Your task to perform on an android device: Open calendar and show me the first week of next month Image 0: 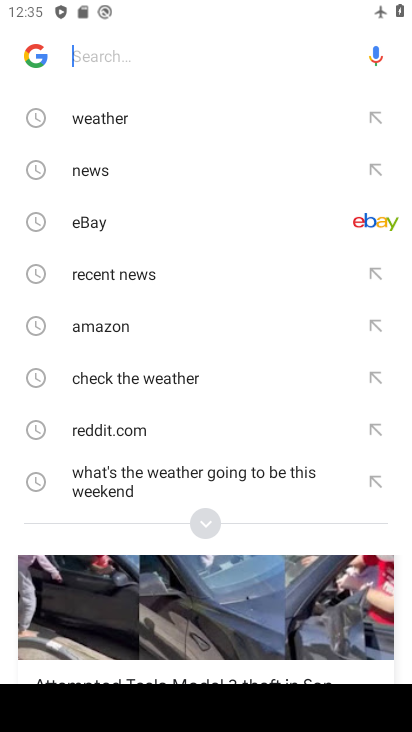
Step 0: press home button
Your task to perform on an android device: Open calendar and show me the first week of next month Image 1: 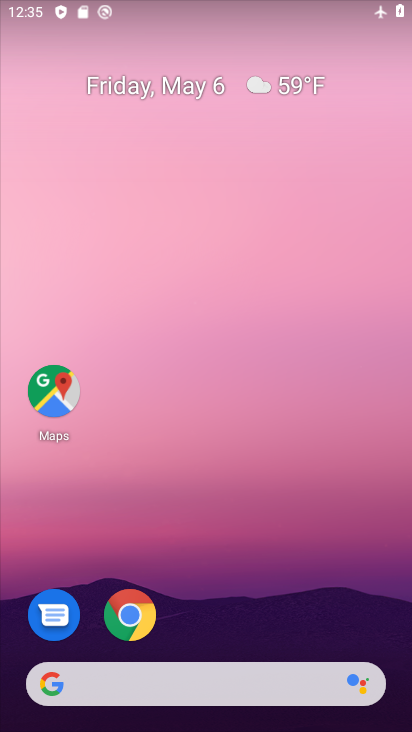
Step 1: drag from (216, 558) to (226, 134)
Your task to perform on an android device: Open calendar and show me the first week of next month Image 2: 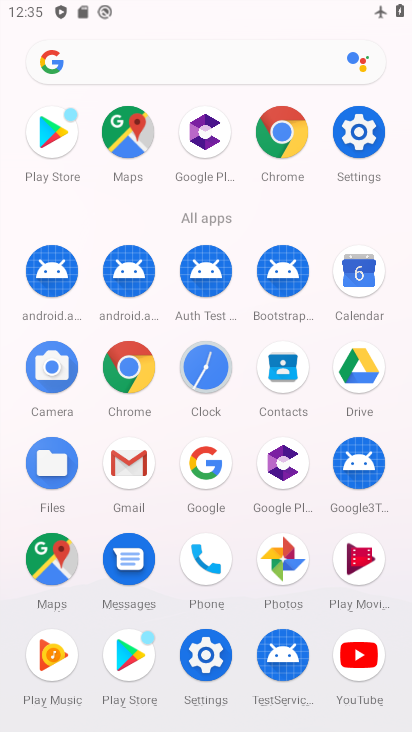
Step 2: click (353, 262)
Your task to perform on an android device: Open calendar and show me the first week of next month Image 3: 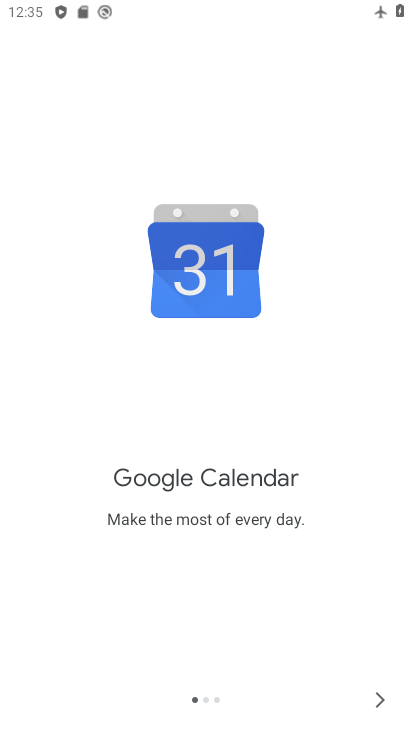
Step 3: click (376, 696)
Your task to perform on an android device: Open calendar and show me the first week of next month Image 4: 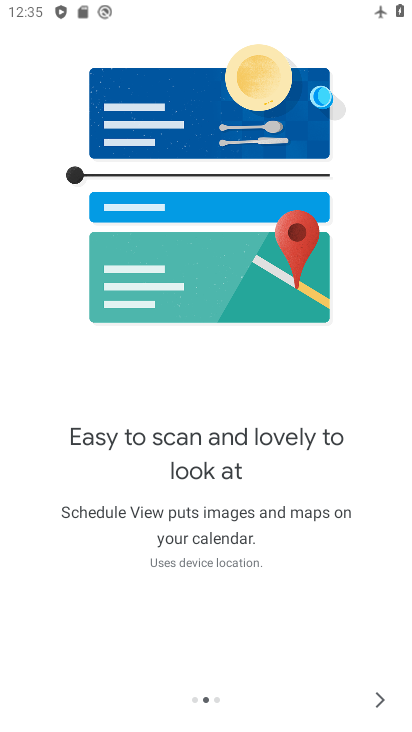
Step 4: click (375, 699)
Your task to perform on an android device: Open calendar and show me the first week of next month Image 5: 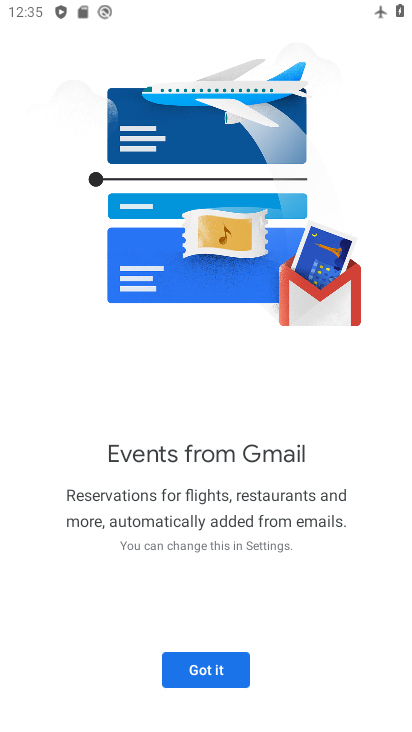
Step 5: click (242, 673)
Your task to perform on an android device: Open calendar and show me the first week of next month Image 6: 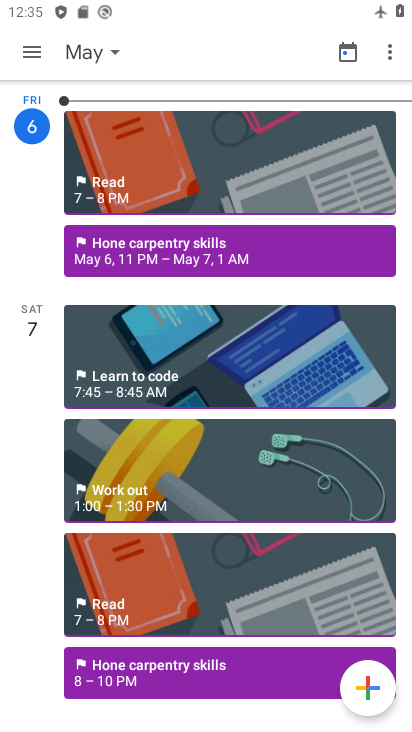
Step 6: click (31, 50)
Your task to perform on an android device: Open calendar and show me the first week of next month Image 7: 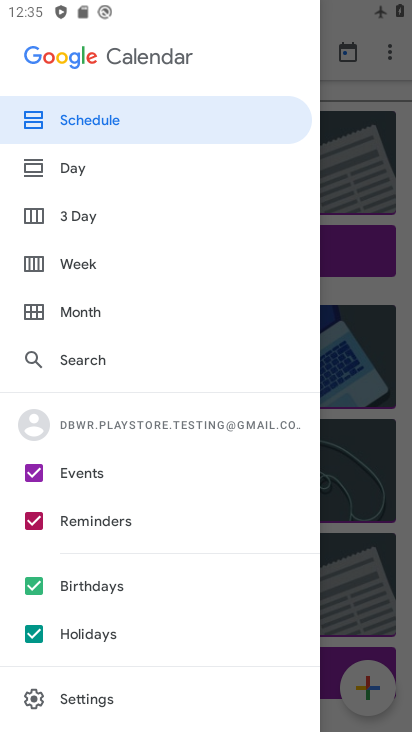
Step 7: click (46, 252)
Your task to perform on an android device: Open calendar and show me the first week of next month Image 8: 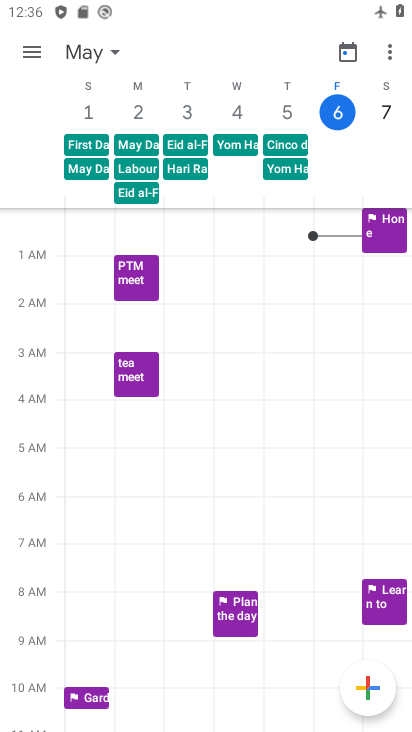
Step 8: task complete